Your task to perform on an android device: turn off translation in the chrome app Image 0: 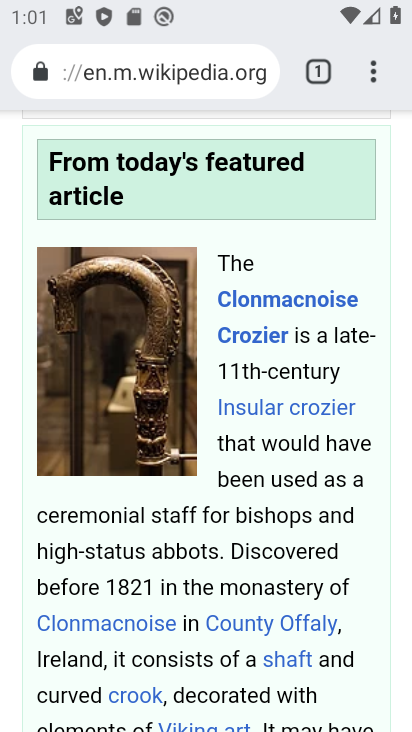
Step 0: click (372, 75)
Your task to perform on an android device: turn off translation in the chrome app Image 1: 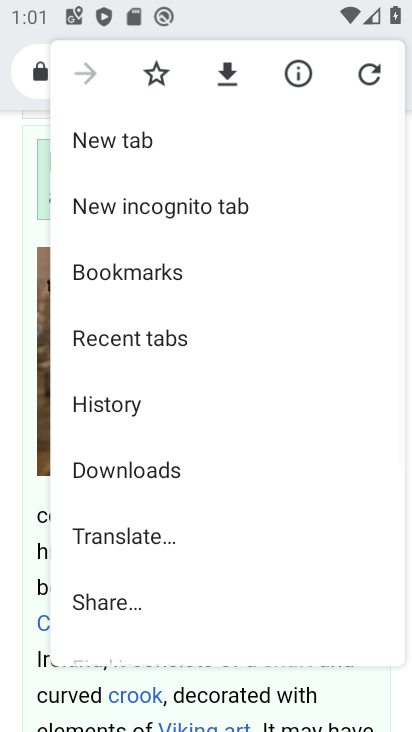
Step 1: drag from (237, 496) to (304, 175)
Your task to perform on an android device: turn off translation in the chrome app Image 2: 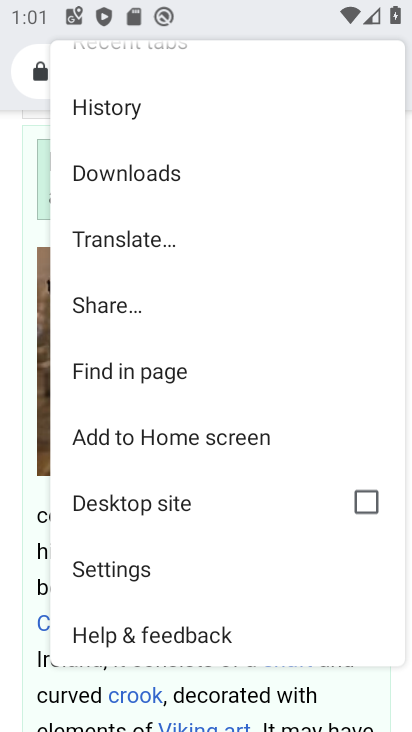
Step 2: click (112, 577)
Your task to perform on an android device: turn off translation in the chrome app Image 3: 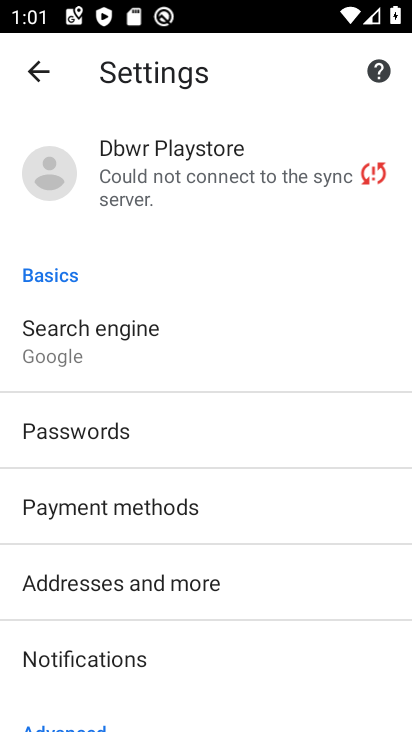
Step 3: drag from (237, 546) to (221, 257)
Your task to perform on an android device: turn off translation in the chrome app Image 4: 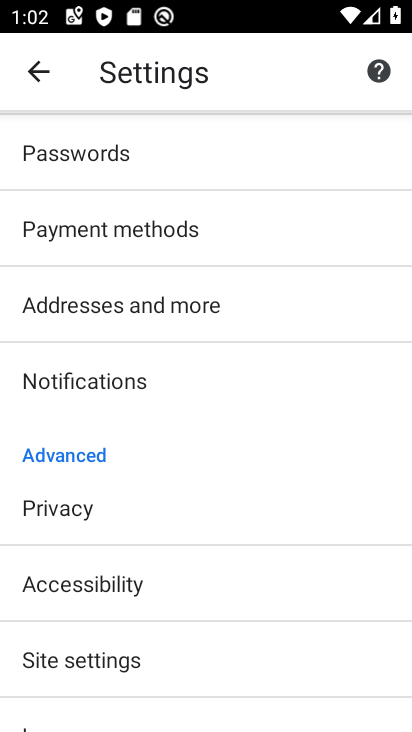
Step 4: drag from (184, 628) to (247, 268)
Your task to perform on an android device: turn off translation in the chrome app Image 5: 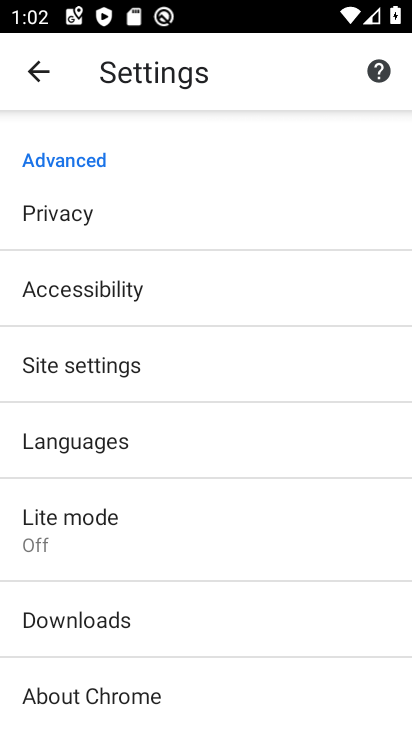
Step 5: click (80, 446)
Your task to perform on an android device: turn off translation in the chrome app Image 6: 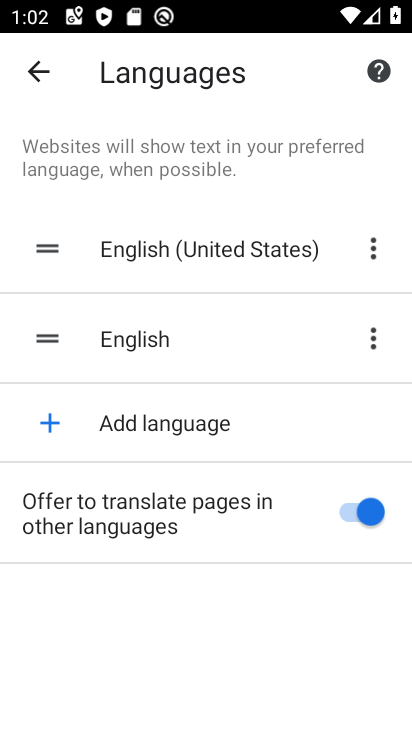
Step 6: click (343, 510)
Your task to perform on an android device: turn off translation in the chrome app Image 7: 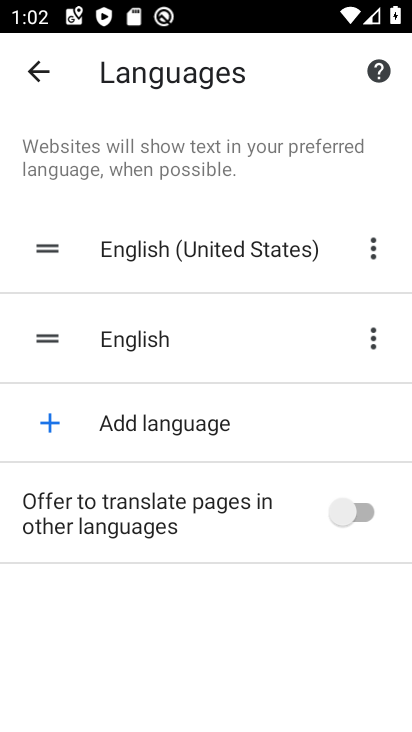
Step 7: task complete